Your task to perform on an android device: search for starred emails in the gmail app Image 0: 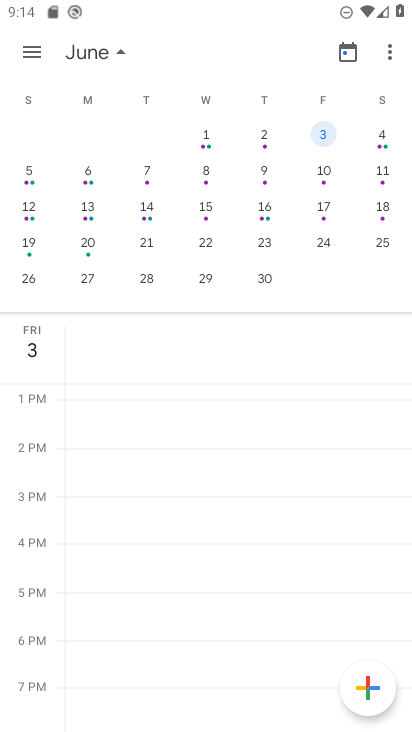
Step 0: press home button
Your task to perform on an android device: search for starred emails in the gmail app Image 1: 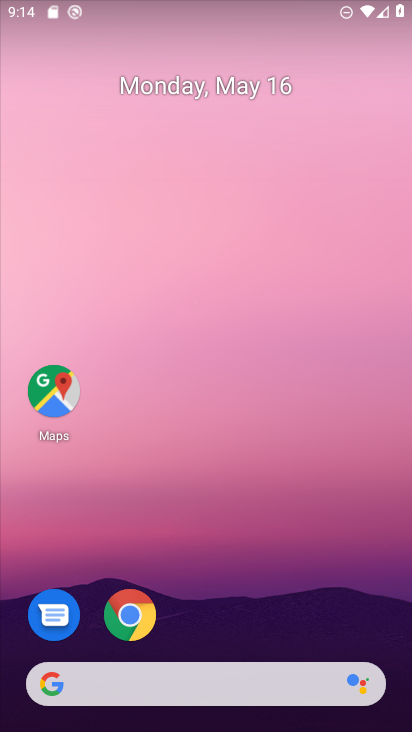
Step 1: drag from (9, 613) to (315, 58)
Your task to perform on an android device: search for starred emails in the gmail app Image 2: 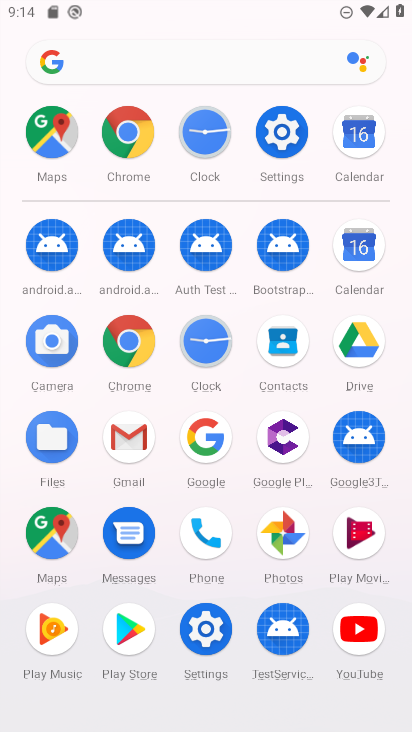
Step 2: click (142, 436)
Your task to perform on an android device: search for starred emails in the gmail app Image 3: 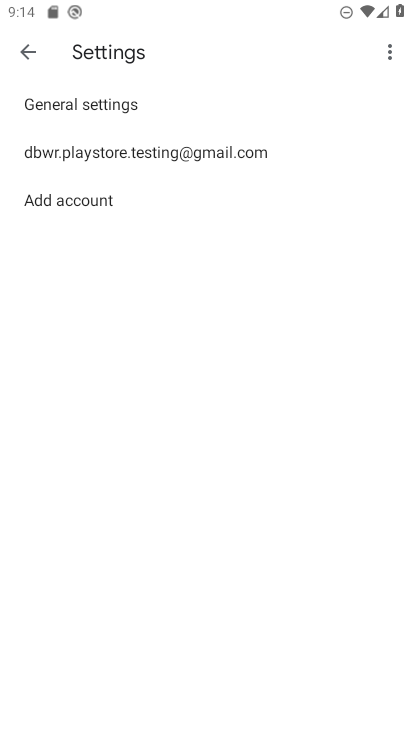
Step 3: click (96, 150)
Your task to perform on an android device: search for starred emails in the gmail app Image 4: 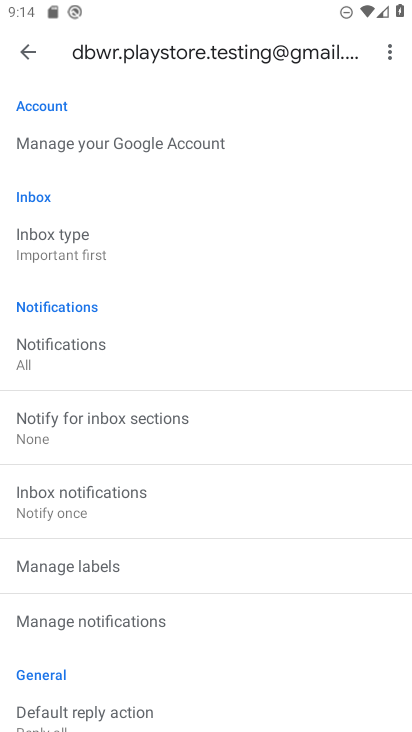
Step 4: press back button
Your task to perform on an android device: search for starred emails in the gmail app Image 5: 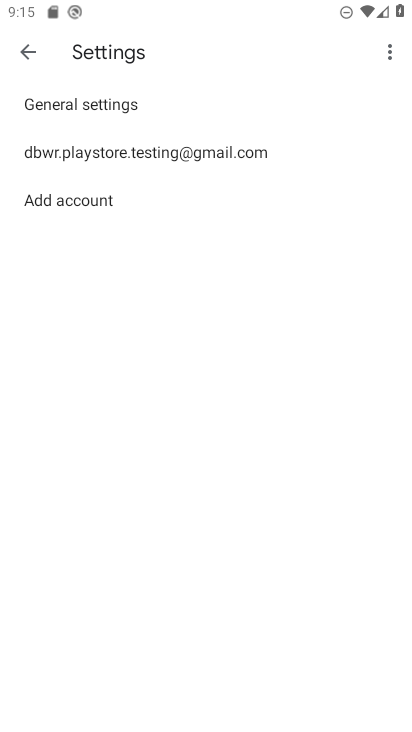
Step 5: press back button
Your task to perform on an android device: search for starred emails in the gmail app Image 6: 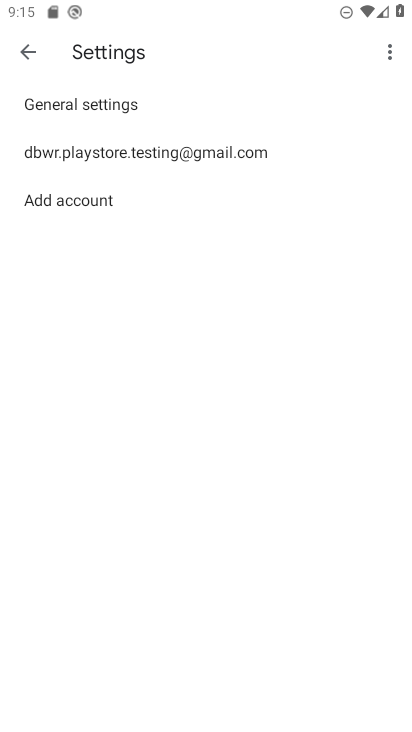
Step 6: press back button
Your task to perform on an android device: search for starred emails in the gmail app Image 7: 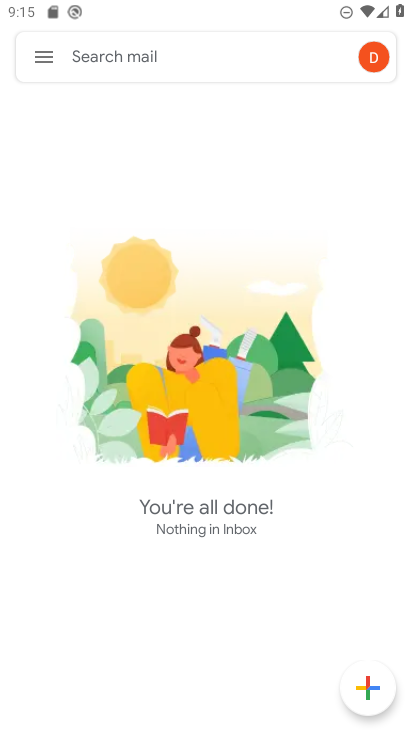
Step 7: click (47, 57)
Your task to perform on an android device: search for starred emails in the gmail app Image 8: 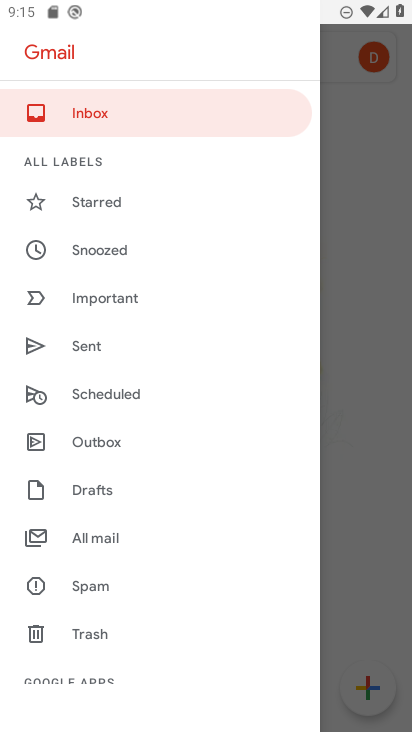
Step 8: drag from (156, 562) to (263, 158)
Your task to perform on an android device: search for starred emails in the gmail app Image 9: 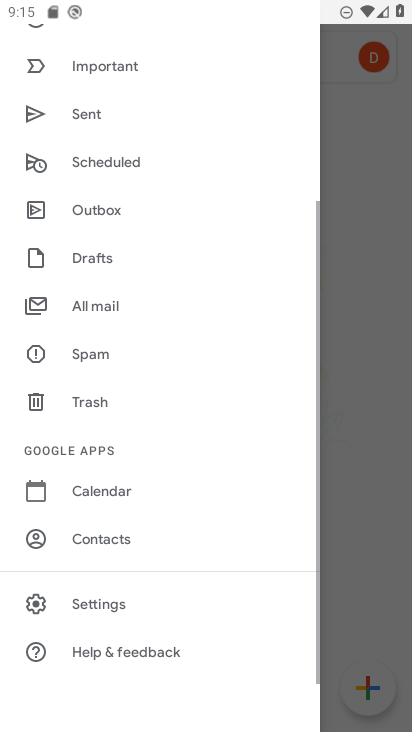
Step 9: click (86, 297)
Your task to perform on an android device: search for starred emails in the gmail app Image 10: 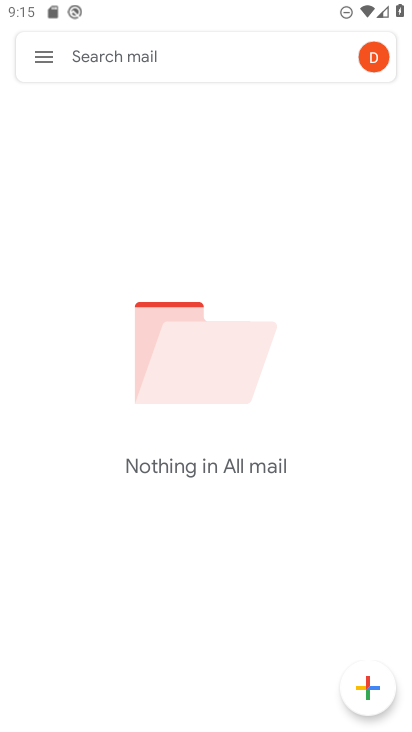
Step 10: task complete